Your task to perform on an android device: change the clock display to analog Image 0: 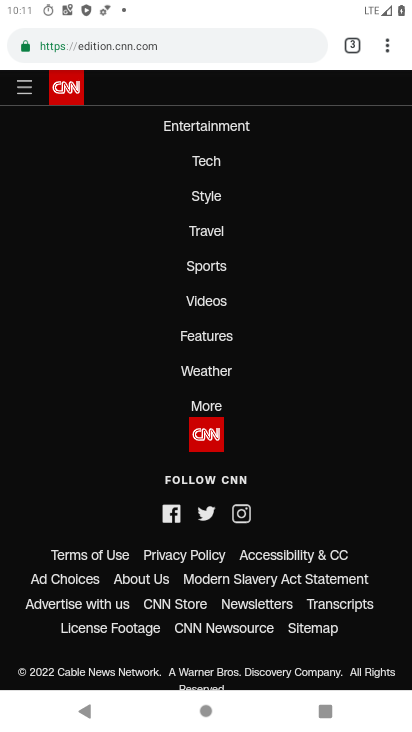
Step 0: press home button
Your task to perform on an android device: change the clock display to analog Image 1: 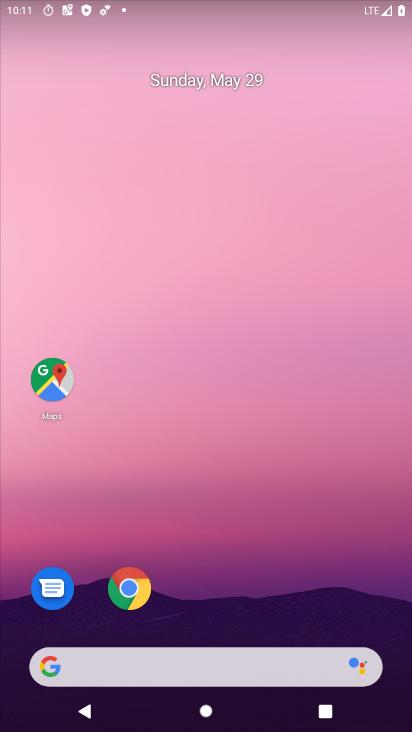
Step 1: drag from (279, 575) to (268, 117)
Your task to perform on an android device: change the clock display to analog Image 2: 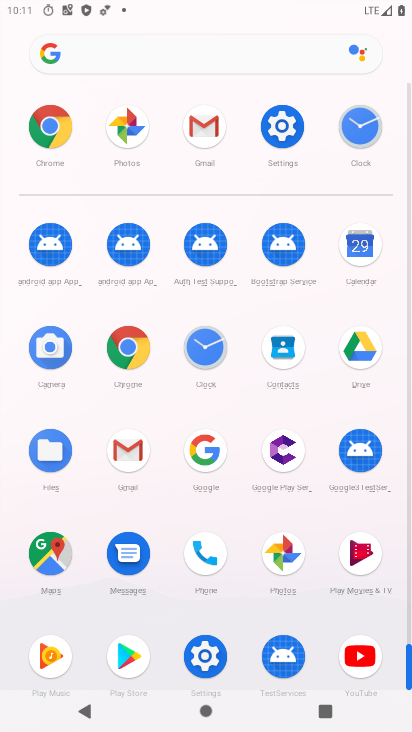
Step 2: click (208, 364)
Your task to perform on an android device: change the clock display to analog Image 3: 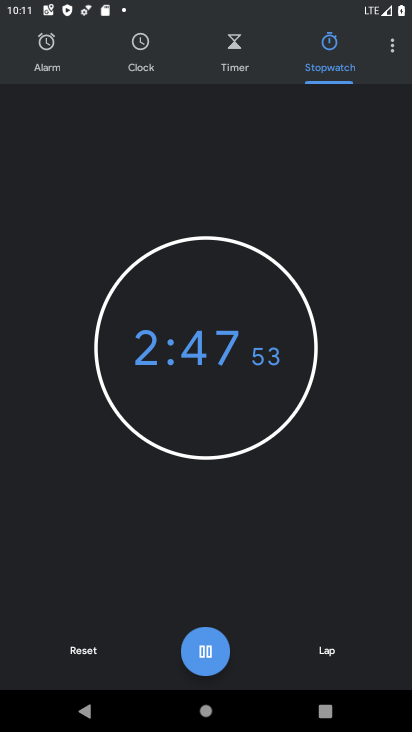
Step 3: click (391, 62)
Your task to perform on an android device: change the clock display to analog Image 4: 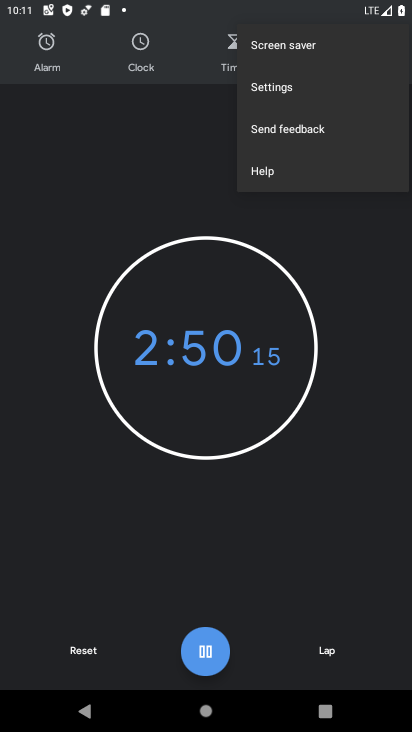
Step 4: click (292, 101)
Your task to perform on an android device: change the clock display to analog Image 5: 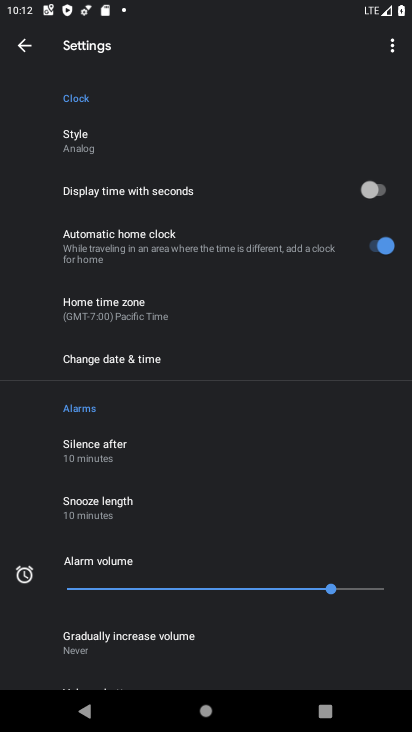
Step 5: task complete